Your task to perform on an android device: Search for razer nari on bestbuy, select the first entry, and add it to the cart. Image 0: 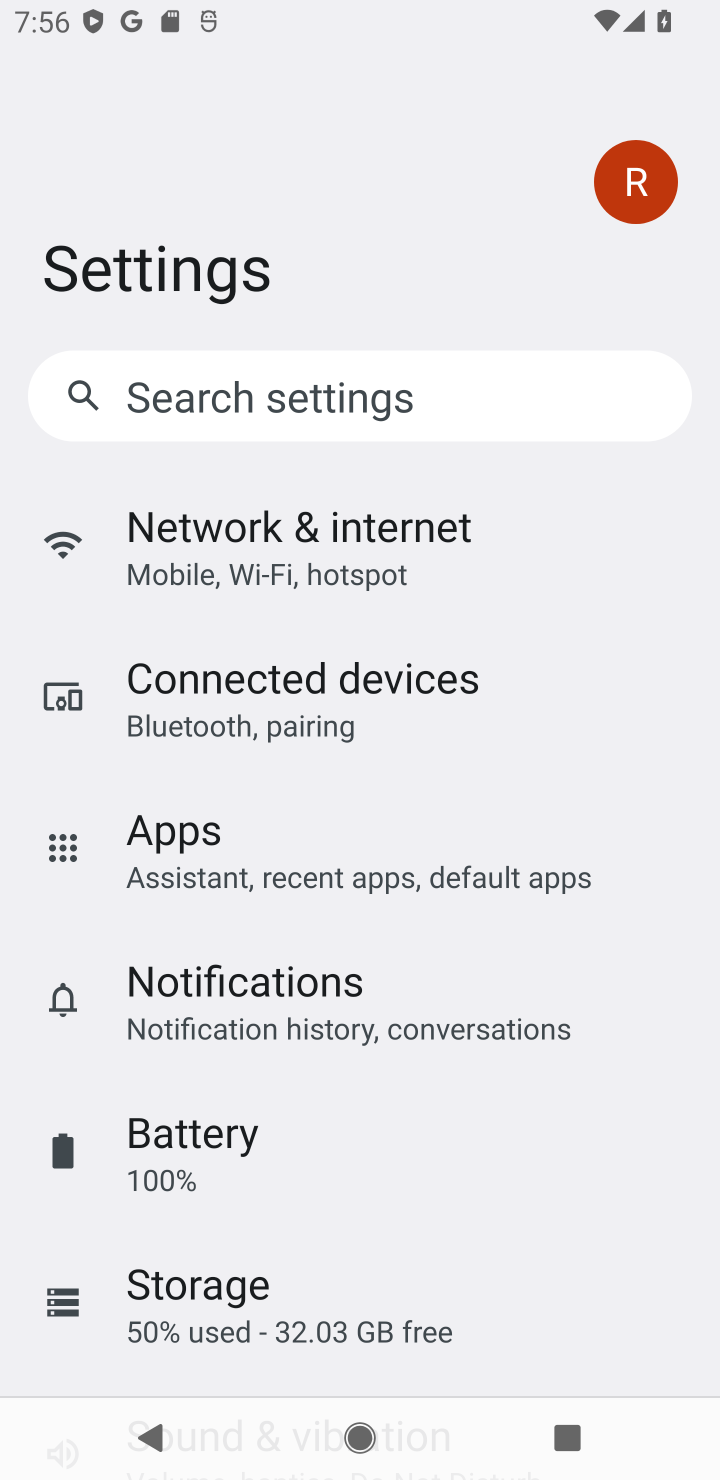
Step 0: press home button
Your task to perform on an android device: Search for razer nari on bestbuy, select the first entry, and add it to the cart. Image 1: 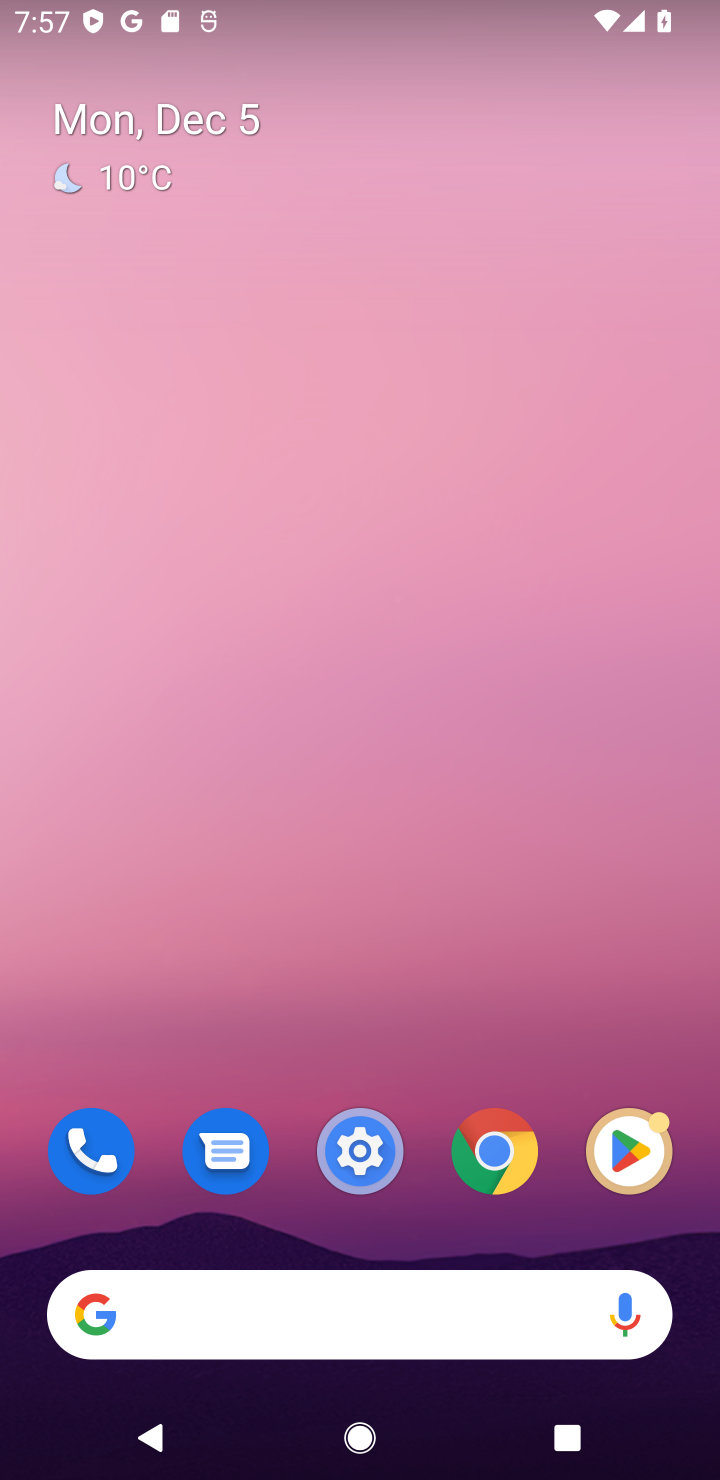
Step 1: click (532, 1340)
Your task to perform on an android device: Search for razer nari on bestbuy, select the first entry, and add it to the cart. Image 2: 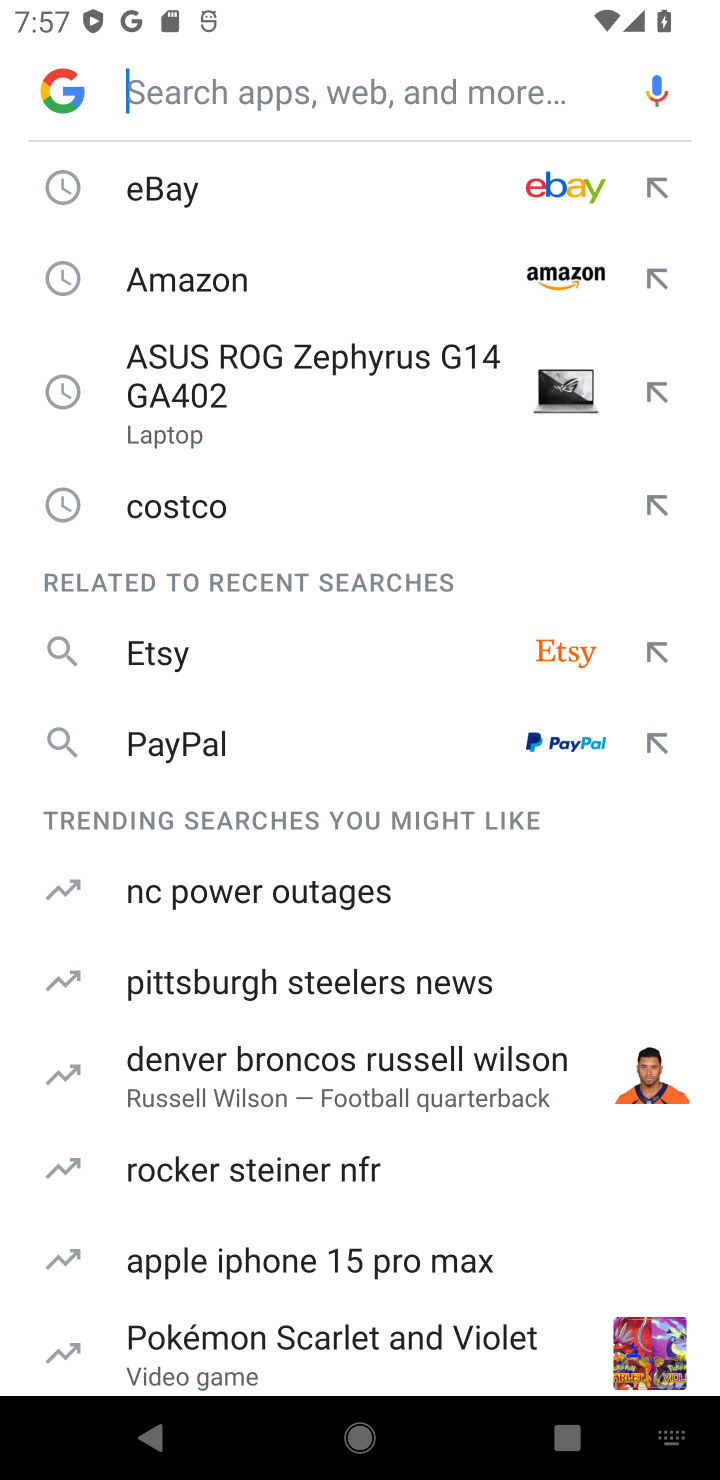
Step 2: type "bestbuy"
Your task to perform on an android device: Search for razer nari on bestbuy, select the first entry, and add it to the cart. Image 3: 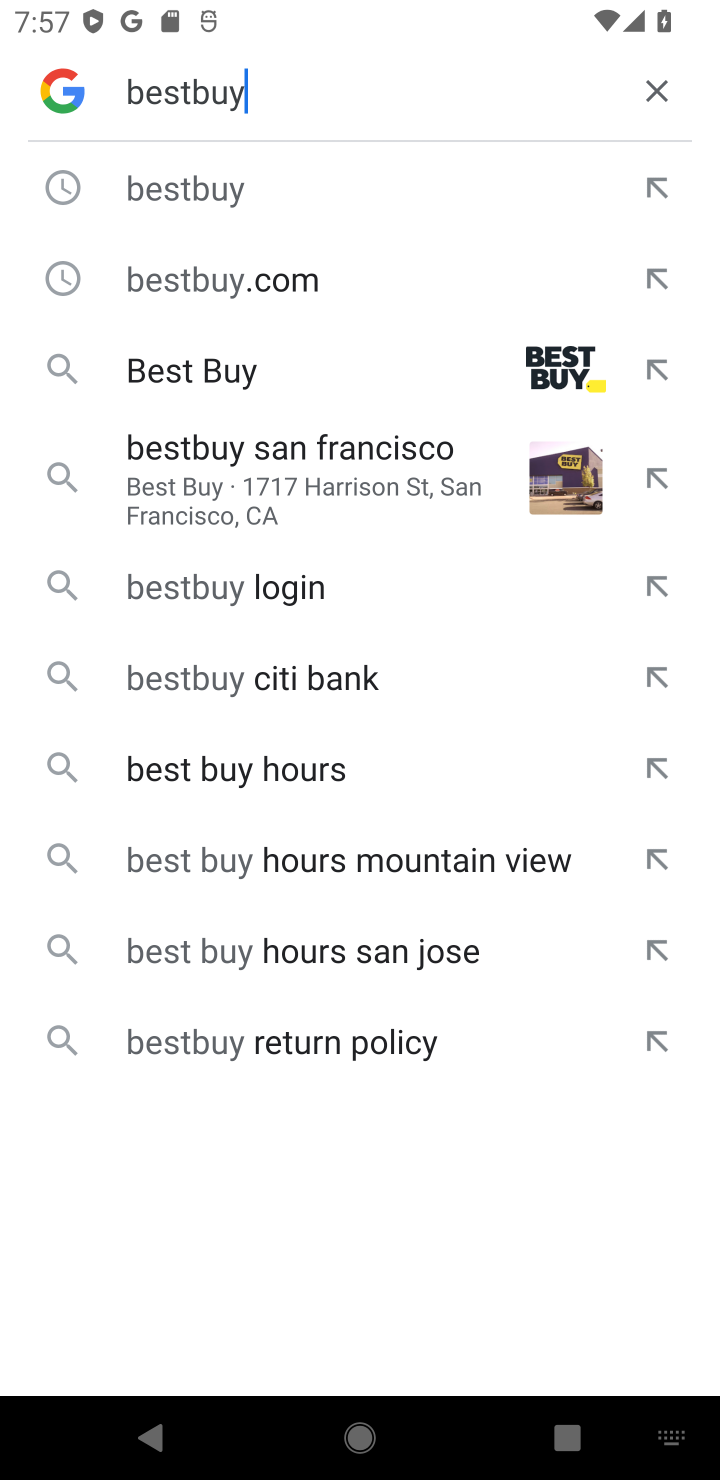
Step 3: click (263, 200)
Your task to perform on an android device: Search for razer nari on bestbuy, select the first entry, and add it to the cart. Image 4: 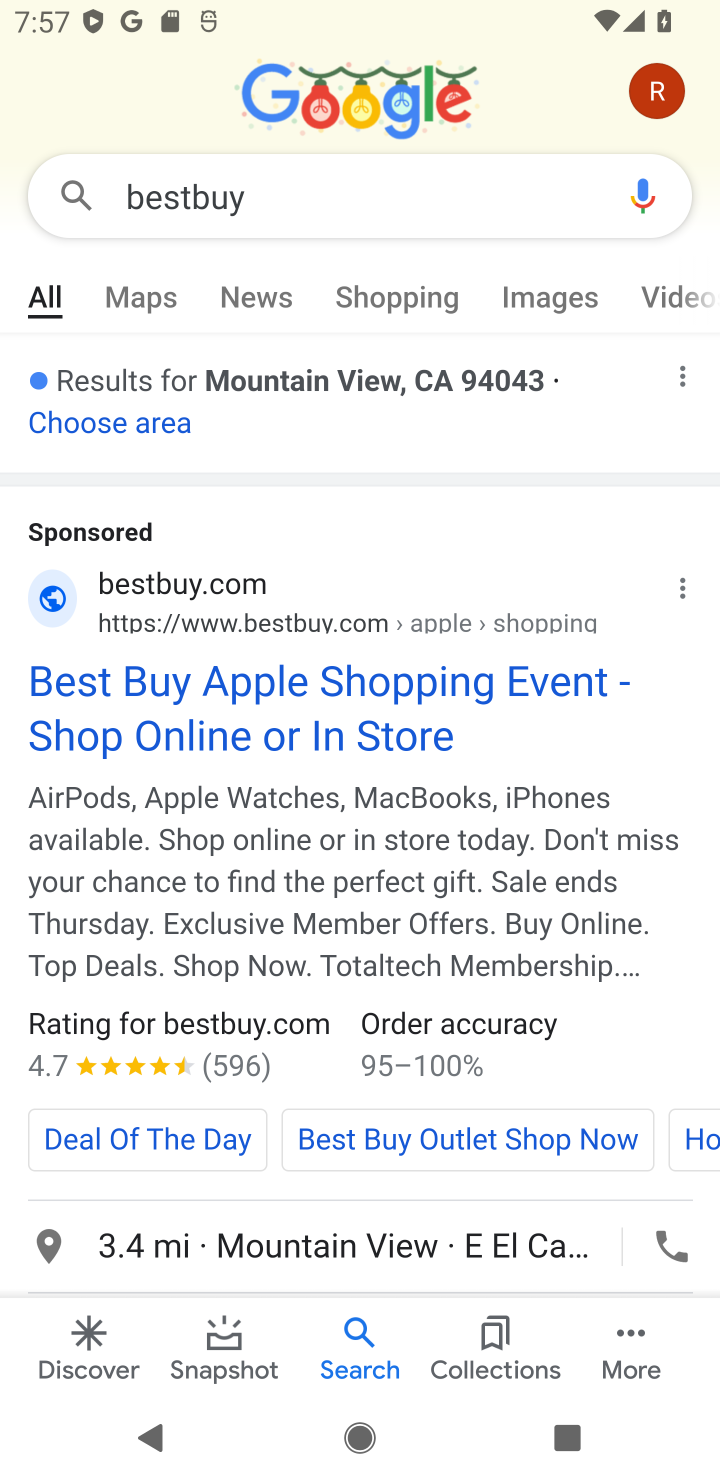
Step 4: click (284, 694)
Your task to perform on an android device: Search for razer nari on bestbuy, select the first entry, and add it to the cart. Image 5: 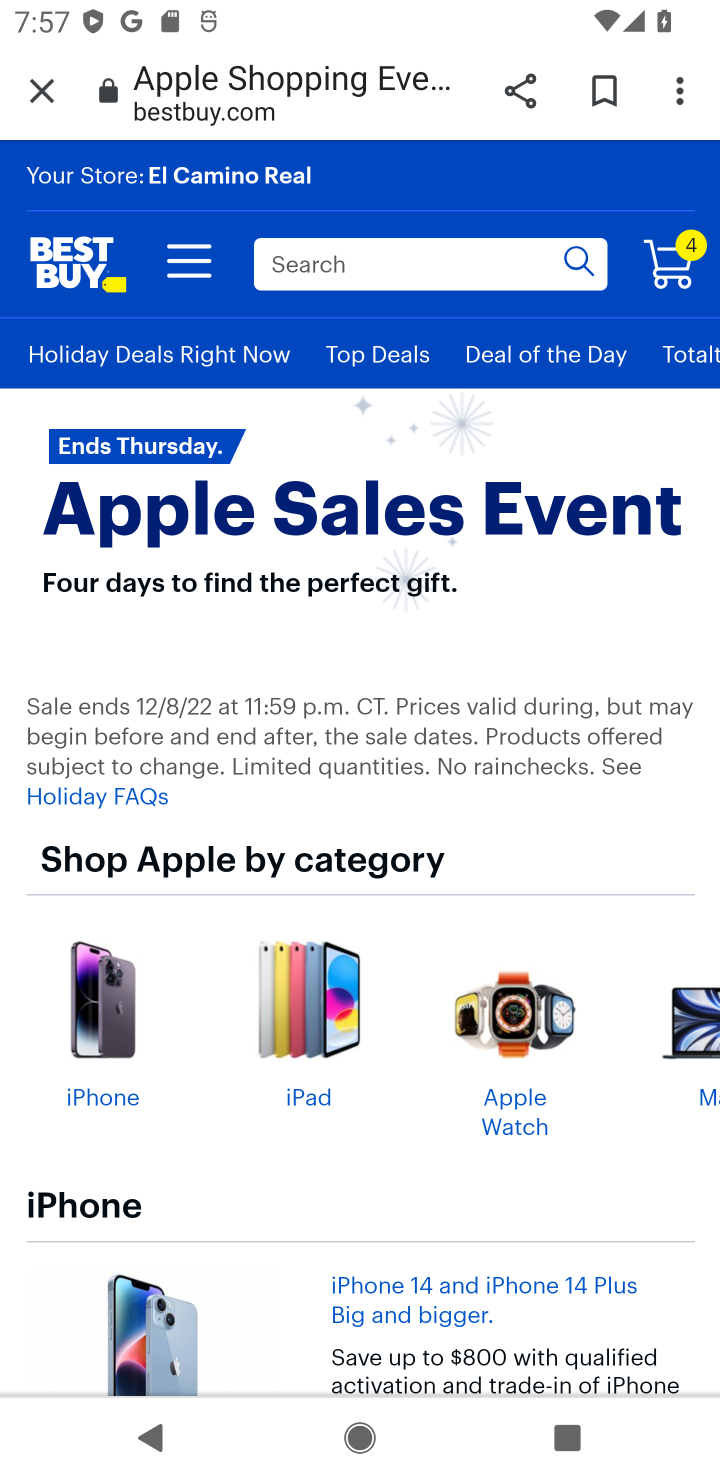
Step 5: click (406, 261)
Your task to perform on an android device: Search for razer nari on bestbuy, select the first entry, and add it to the cart. Image 6: 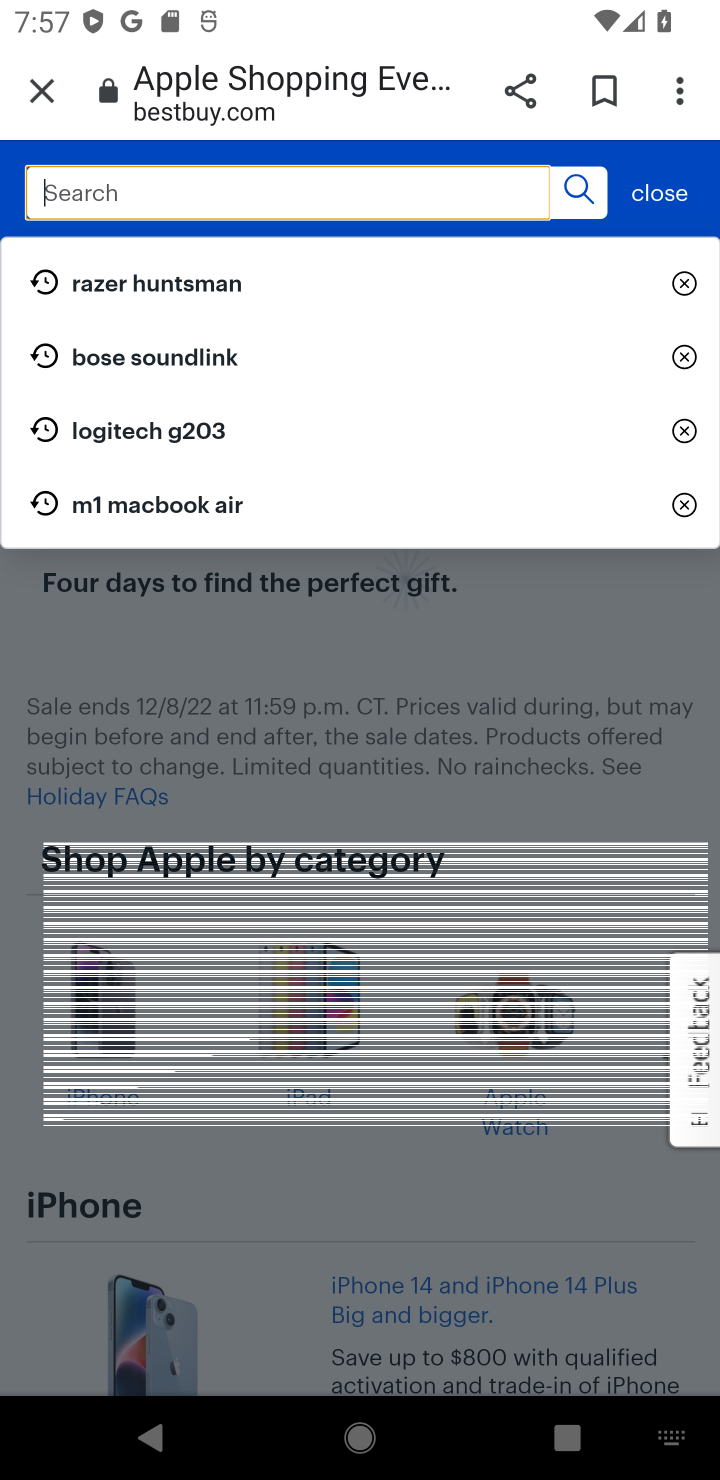
Step 6: type "razer nari"
Your task to perform on an android device: Search for razer nari on bestbuy, select the first entry, and add it to the cart. Image 7: 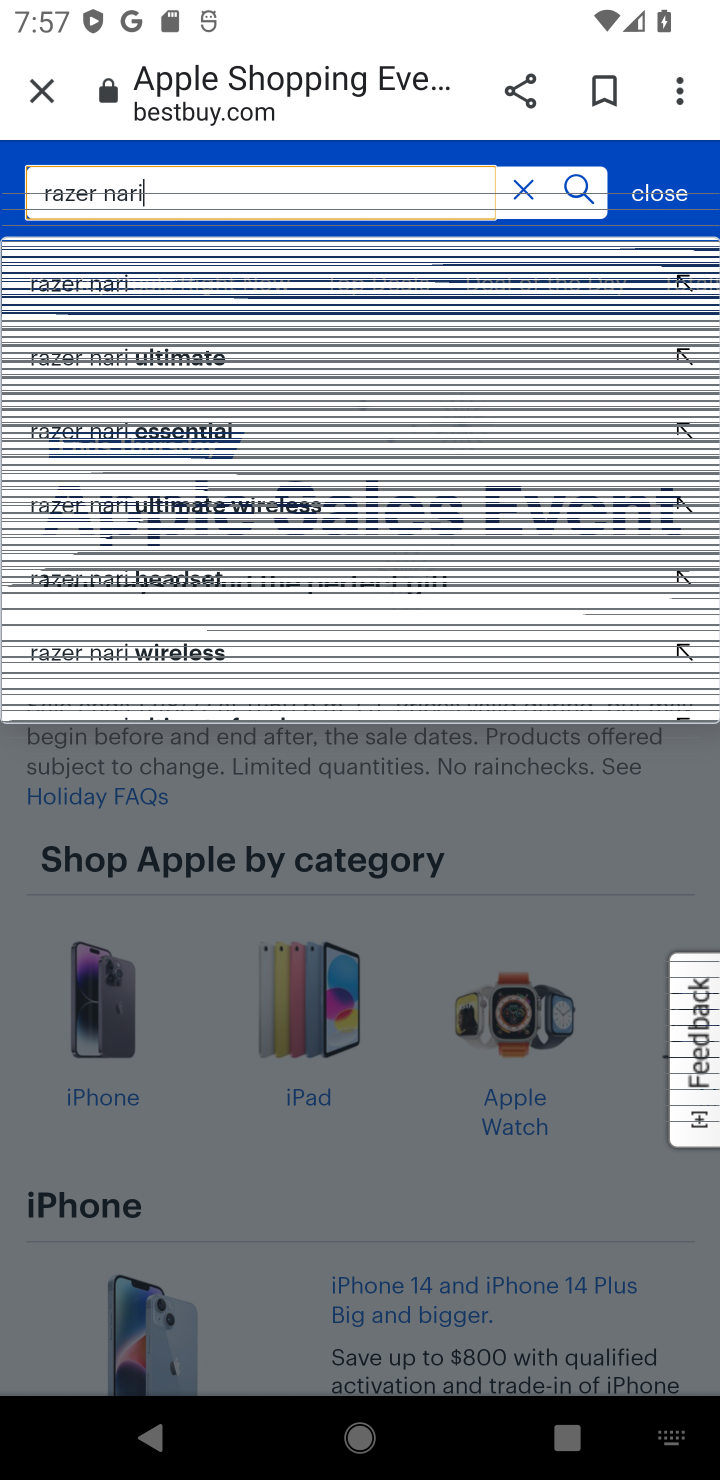
Step 7: click (217, 290)
Your task to perform on an android device: Search for razer nari on bestbuy, select the first entry, and add it to the cart. Image 8: 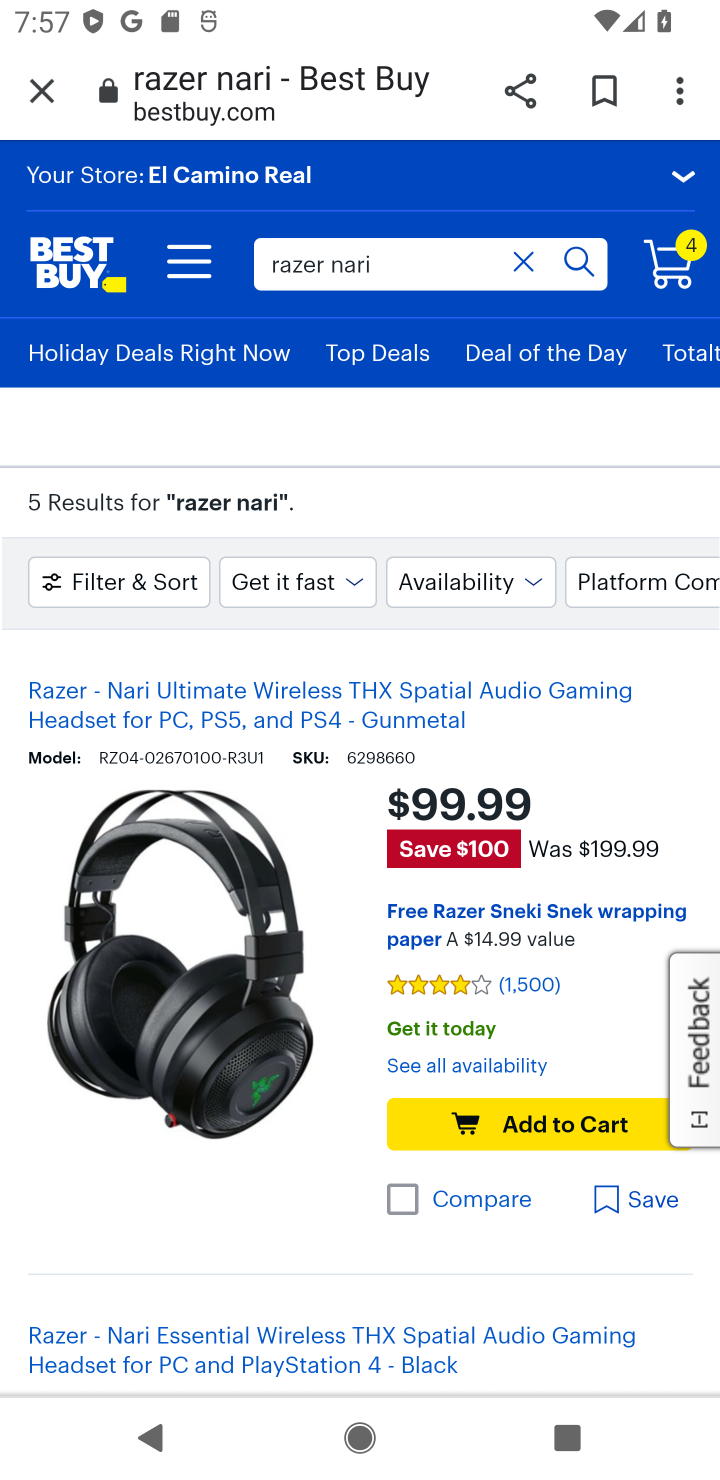
Step 8: click (485, 1124)
Your task to perform on an android device: Search for razer nari on bestbuy, select the first entry, and add it to the cart. Image 9: 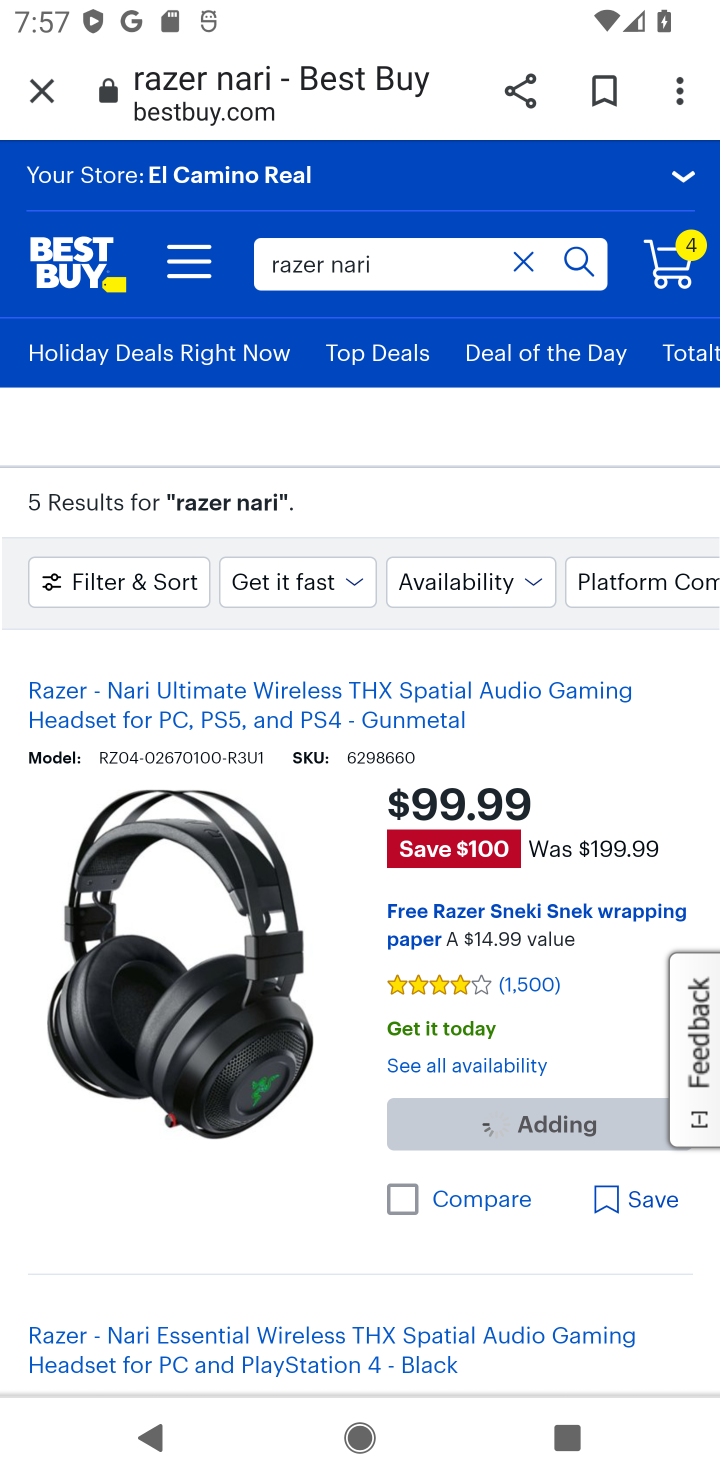
Step 9: task complete